Your task to perform on an android device: find photos in the google photos app Image 0: 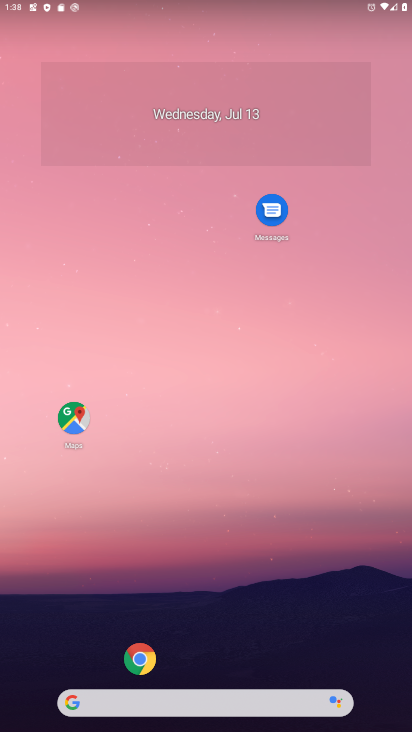
Step 0: drag from (33, 692) to (297, 30)
Your task to perform on an android device: find photos in the google photos app Image 1: 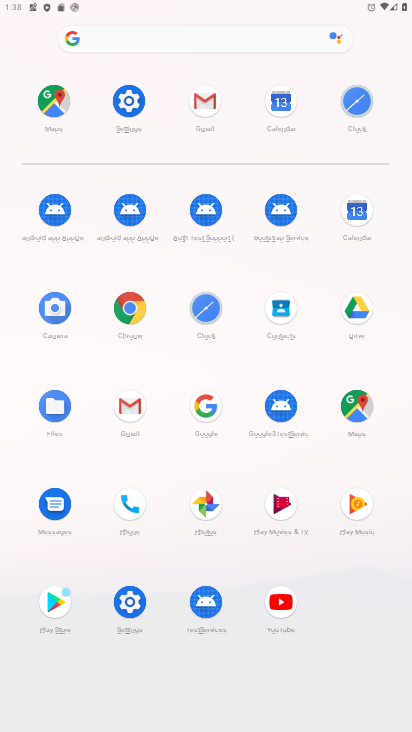
Step 1: click (200, 509)
Your task to perform on an android device: find photos in the google photos app Image 2: 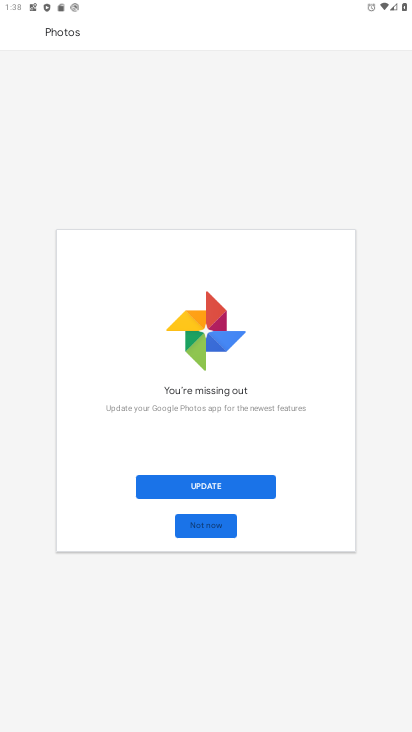
Step 2: click (195, 526)
Your task to perform on an android device: find photos in the google photos app Image 3: 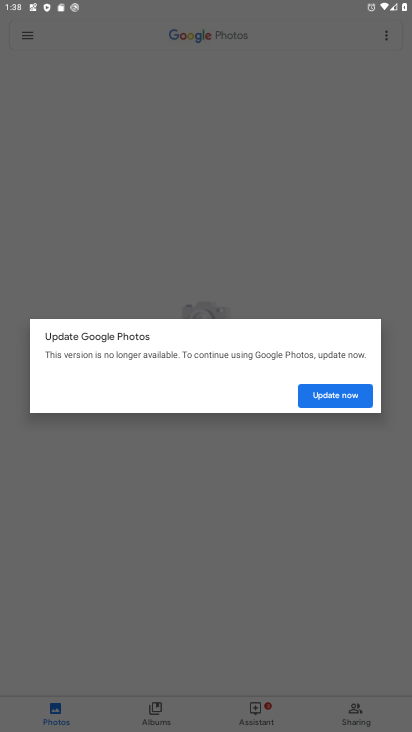
Step 3: click (328, 381)
Your task to perform on an android device: find photos in the google photos app Image 4: 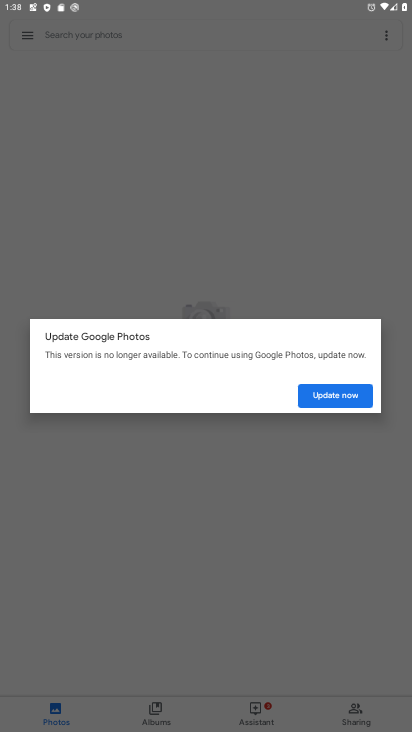
Step 4: click (314, 394)
Your task to perform on an android device: find photos in the google photos app Image 5: 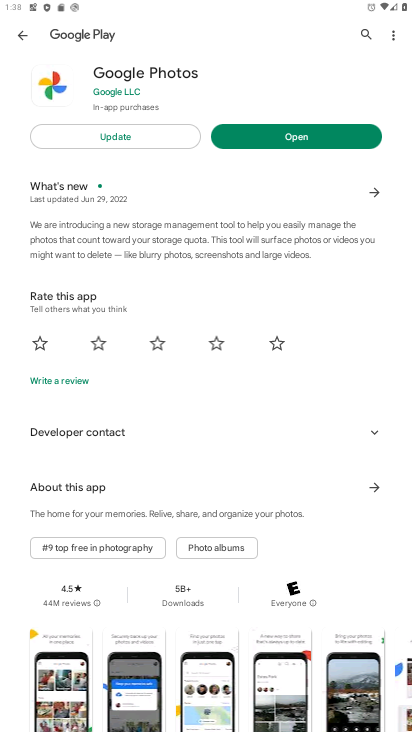
Step 5: click (282, 131)
Your task to perform on an android device: find photos in the google photos app Image 6: 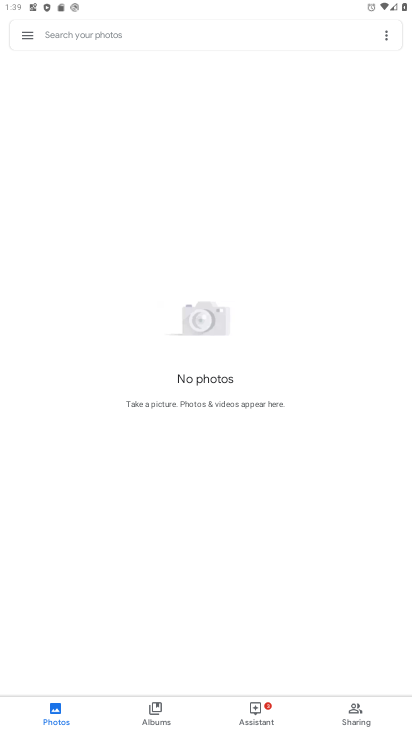
Step 6: task complete